Your task to perform on an android device: change the clock display to show seconds Image 0: 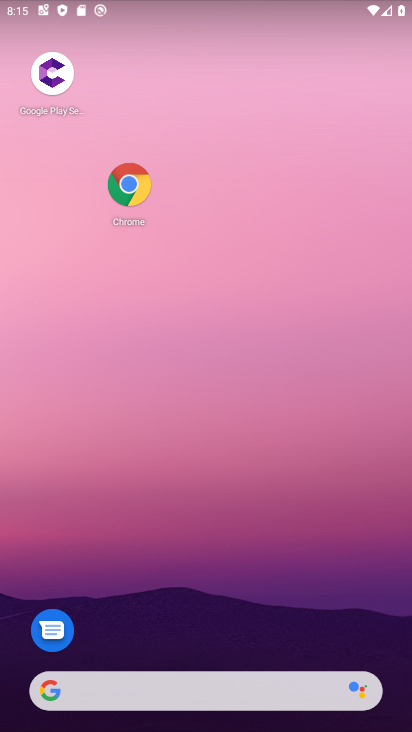
Step 0: press home button
Your task to perform on an android device: change the clock display to show seconds Image 1: 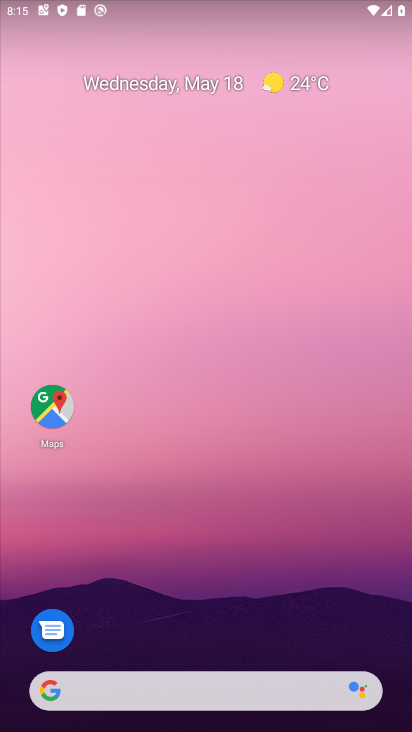
Step 1: click (195, 239)
Your task to perform on an android device: change the clock display to show seconds Image 2: 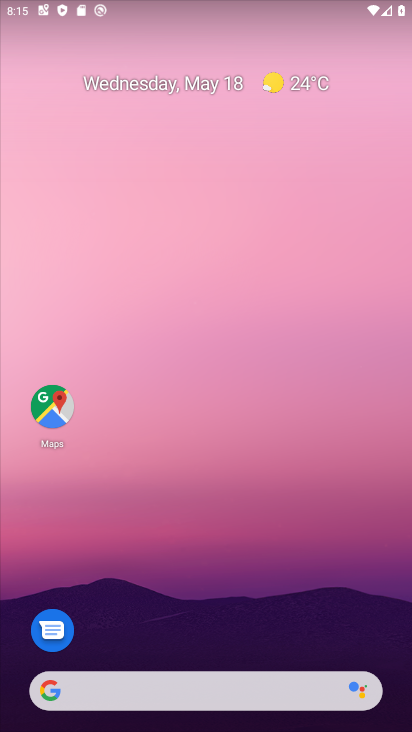
Step 2: drag from (252, 669) to (245, 241)
Your task to perform on an android device: change the clock display to show seconds Image 3: 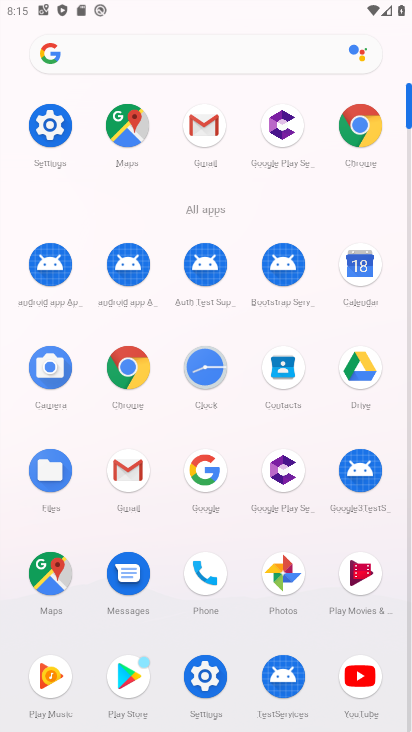
Step 3: drag from (210, 481) to (210, 257)
Your task to perform on an android device: change the clock display to show seconds Image 4: 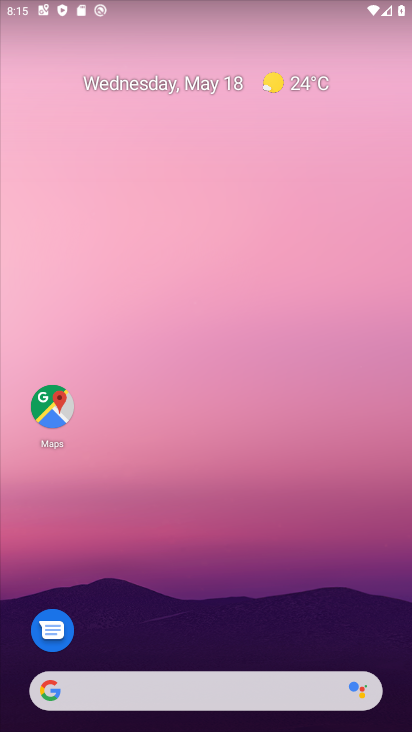
Step 4: drag from (133, 664) to (167, 149)
Your task to perform on an android device: change the clock display to show seconds Image 5: 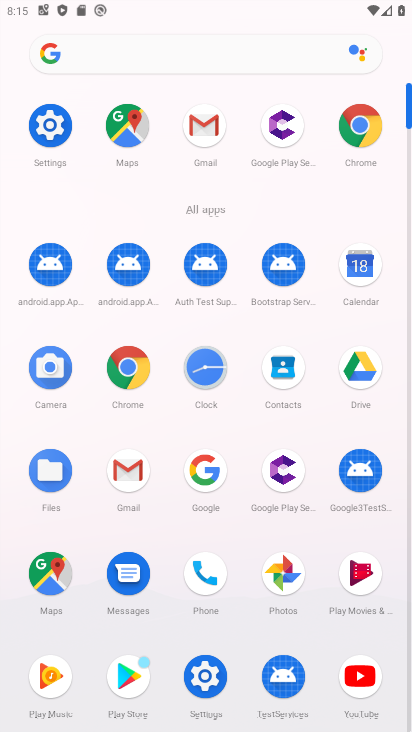
Step 5: drag from (185, 679) to (241, 301)
Your task to perform on an android device: change the clock display to show seconds Image 6: 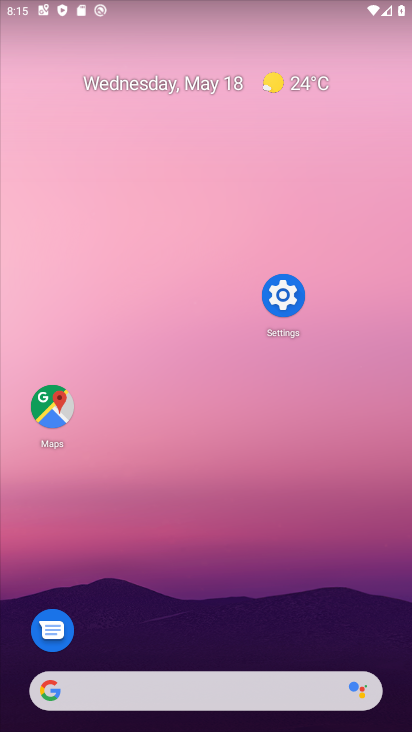
Step 6: click (205, 370)
Your task to perform on an android device: change the clock display to show seconds Image 7: 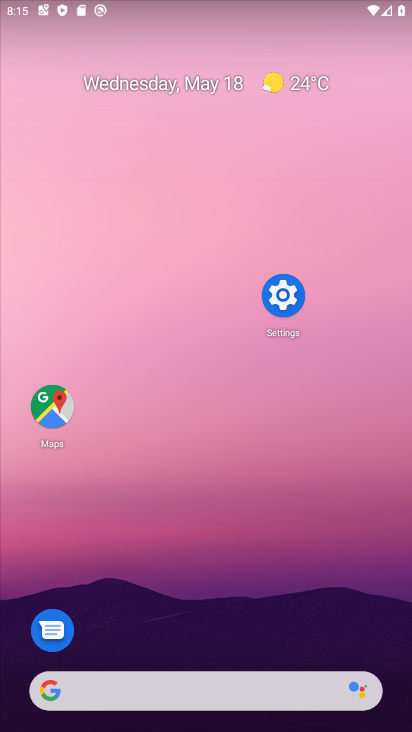
Step 7: drag from (179, 669) to (202, 179)
Your task to perform on an android device: change the clock display to show seconds Image 8: 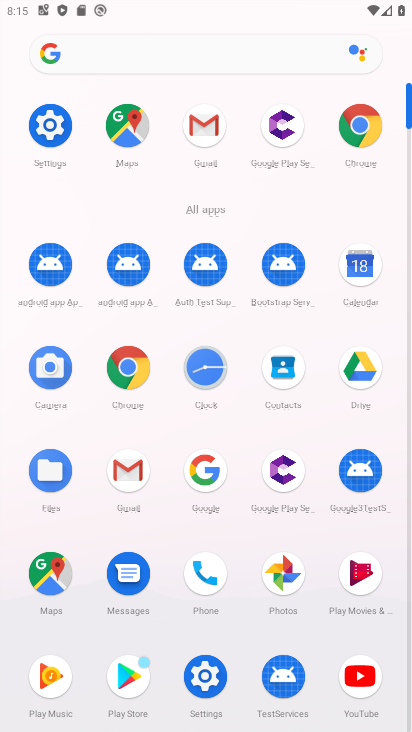
Step 8: click (207, 368)
Your task to perform on an android device: change the clock display to show seconds Image 9: 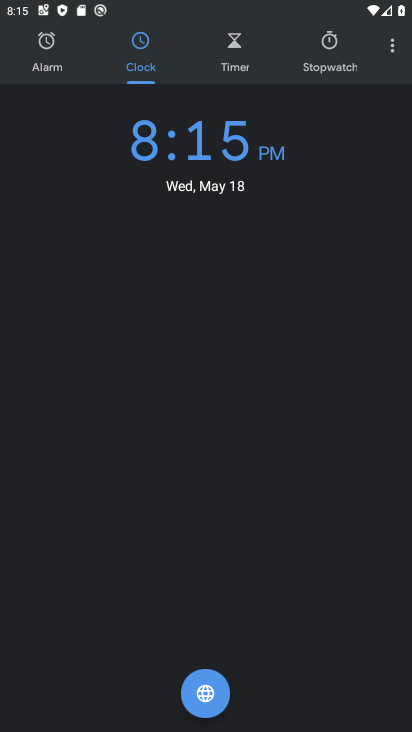
Step 9: click (392, 46)
Your task to perform on an android device: change the clock display to show seconds Image 10: 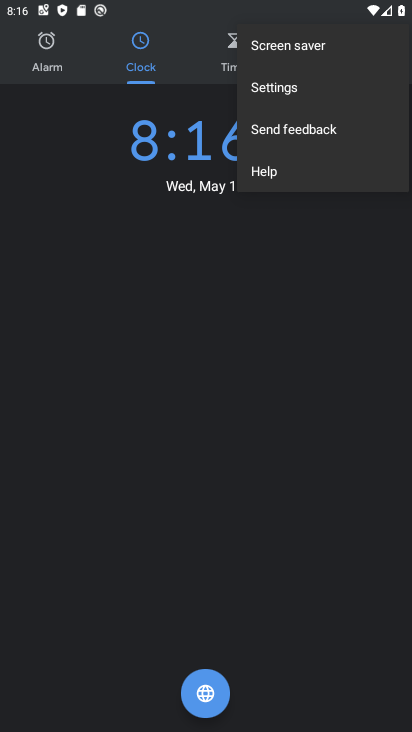
Step 10: click (395, 55)
Your task to perform on an android device: change the clock display to show seconds Image 11: 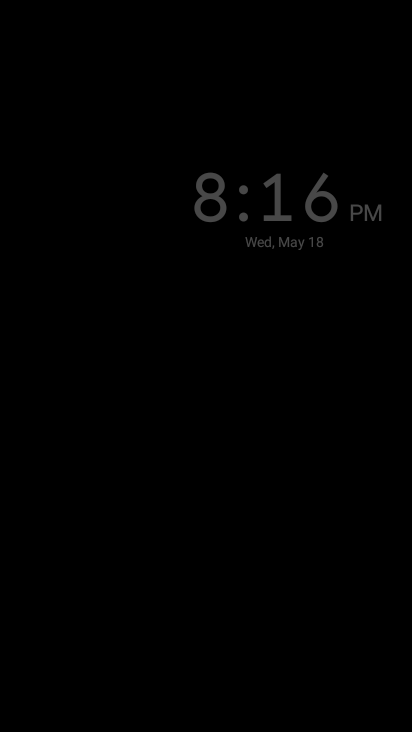
Step 11: click (274, 91)
Your task to perform on an android device: change the clock display to show seconds Image 12: 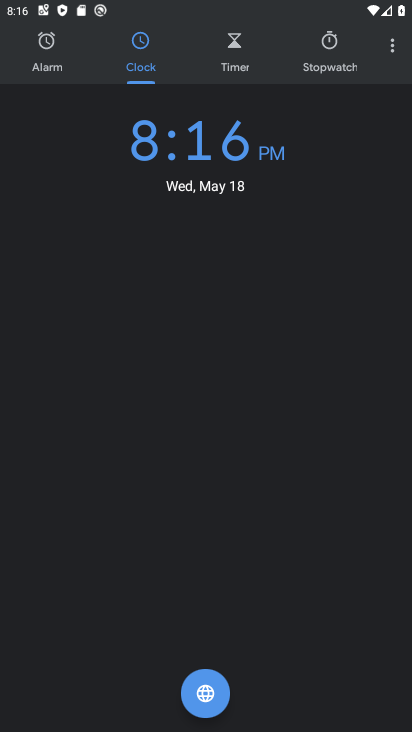
Step 12: click (396, 51)
Your task to perform on an android device: change the clock display to show seconds Image 13: 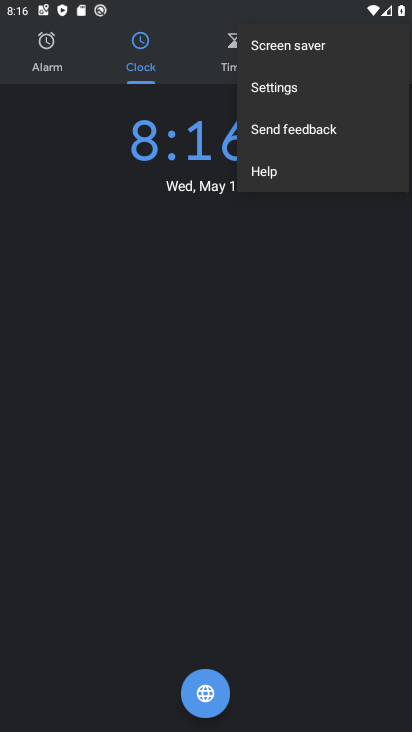
Step 13: click (302, 91)
Your task to perform on an android device: change the clock display to show seconds Image 14: 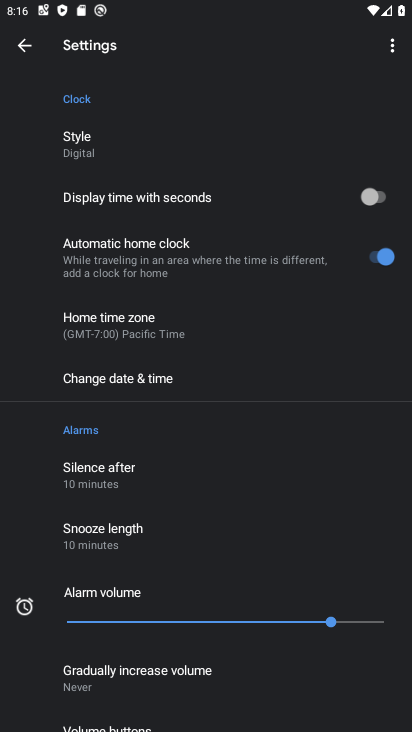
Step 14: click (378, 193)
Your task to perform on an android device: change the clock display to show seconds Image 15: 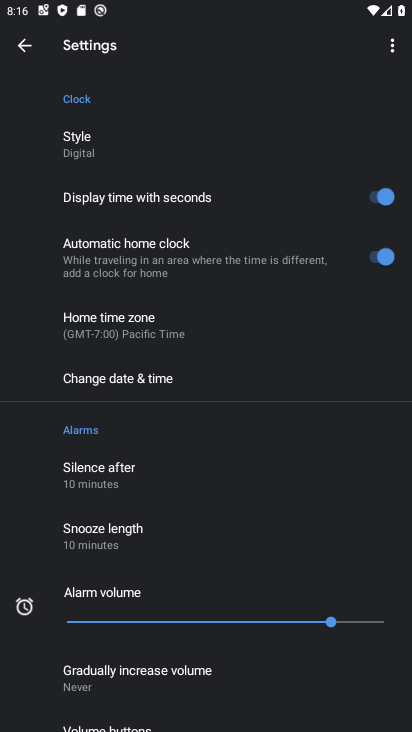
Step 15: task complete